Your task to perform on an android device: Open Chrome and go to the settings page Image 0: 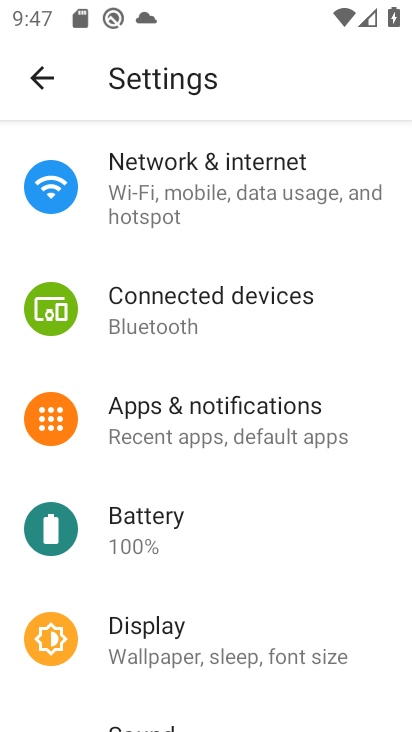
Step 0: press home button
Your task to perform on an android device: Open Chrome and go to the settings page Image 1: 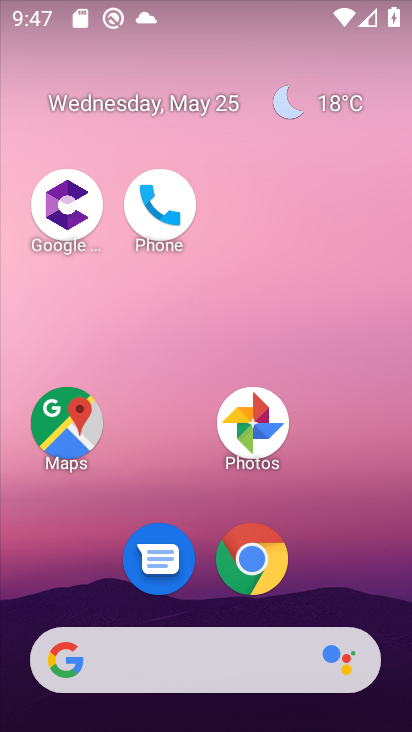
Step 1: click (260, 563)
Your task to perform on an android device: Open Chrome and go to the settings page Image 2: 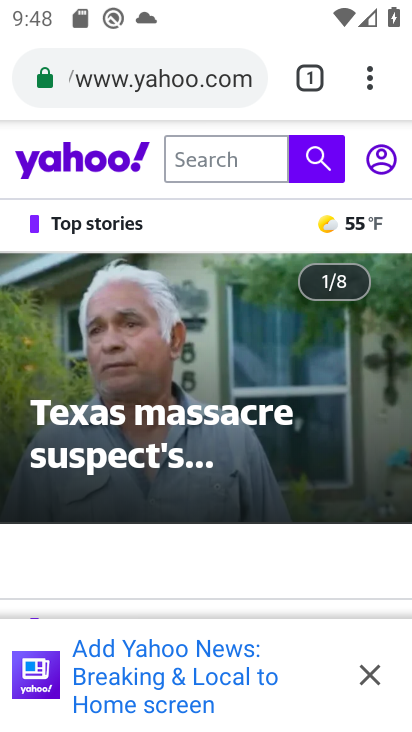
Step 2: click (366, 670)
Your task to perform on an android device: Open Chrome and go to the settings page Image 3: 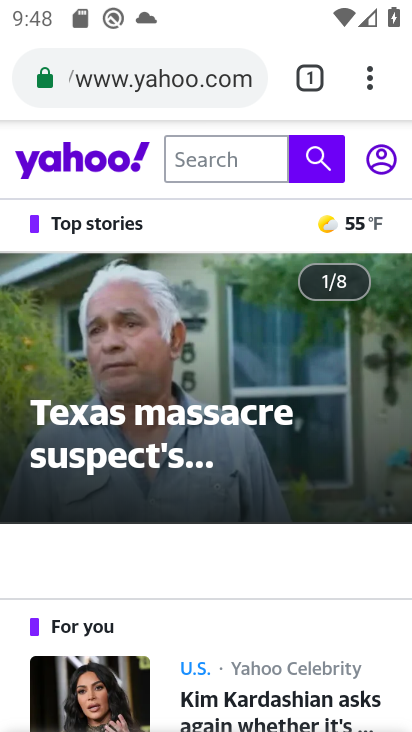
Step 3: click (370, 76)
Your task to perform on an android device: Open Chrome and go to the settings page Image 4: 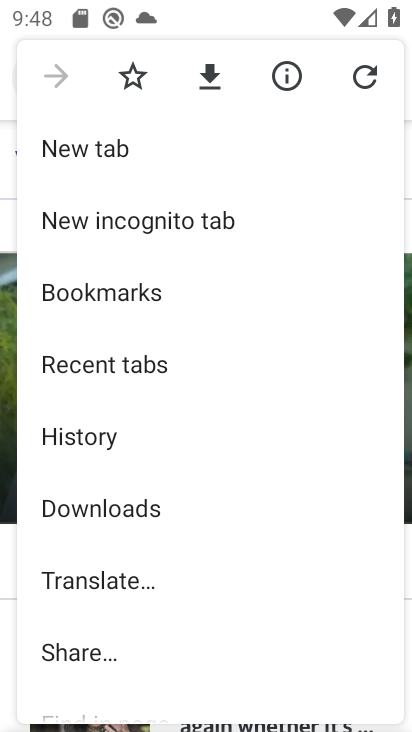
Step 4: drag from (124, 515) to (140, 164)
Your task to perform on an android device: Open Chrome and go to the settings page Image 5: 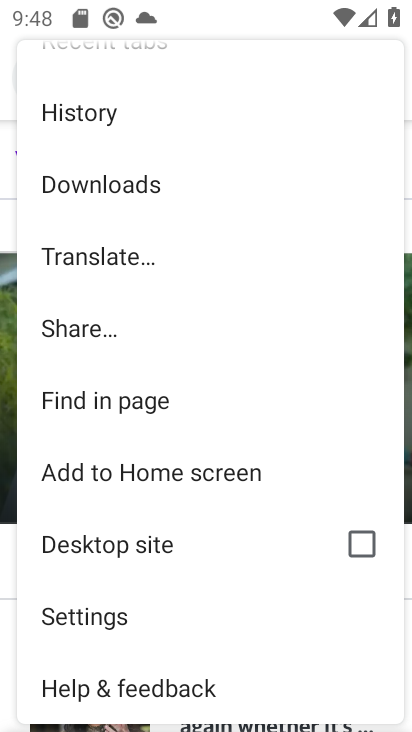
Step 5: click (60, 610)
Your task to perform on an android device: Open Chrome and go to the settings page Image 6: 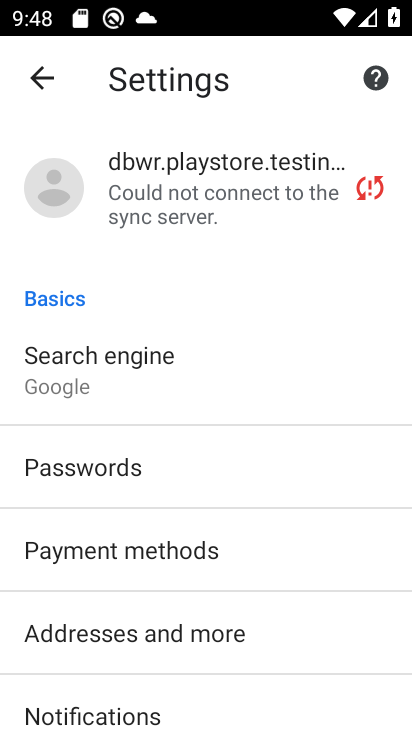
Step 6: task complete